Your task to perform on an android device: Open the stopwatch Image 0: 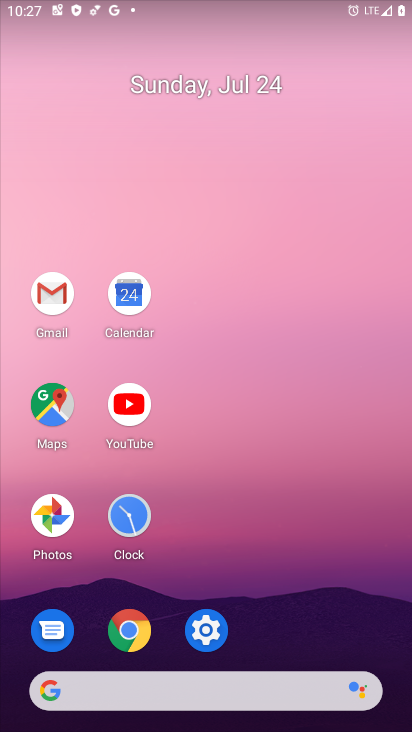
Step 0: click (123, 508)
Your task to perform on an android device: Open the stopwatch Image 1: 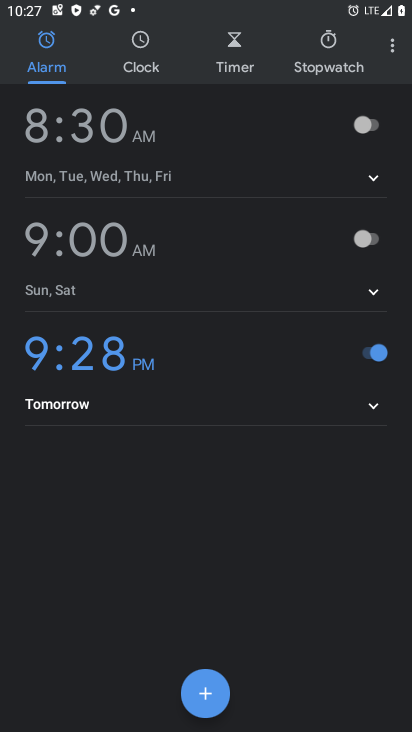
Step 1: click (337, 52)
Your task to perform on an android device: Open the stopwatch Image 2: 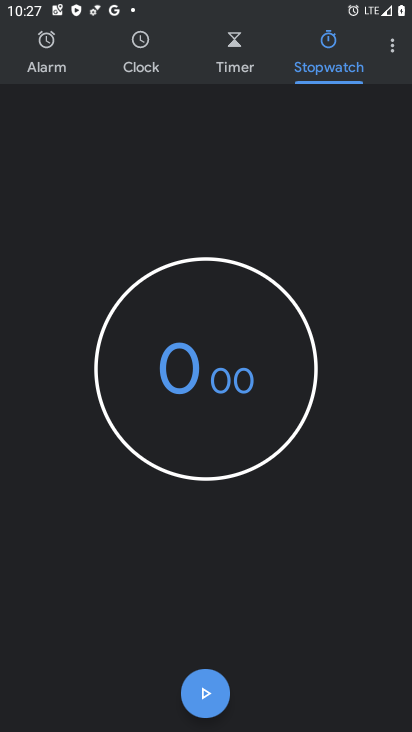
Step 2: task complete